Your task to perform on an android device: Open Maps and search for coffee Image 0: 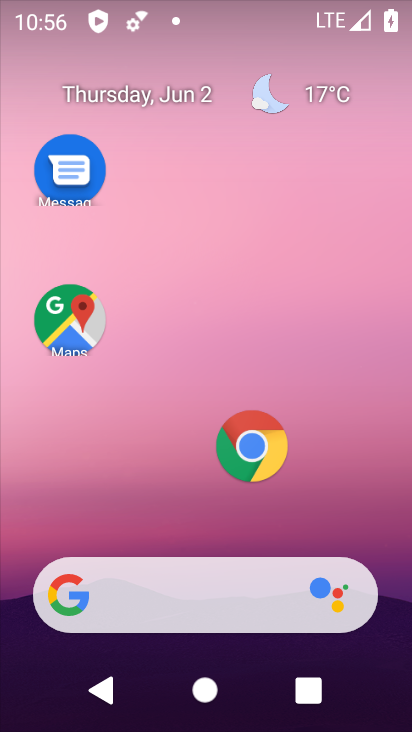
Step 0: press home button
Your task to perform on an android device: Open Maps and search for coffee Image 1: 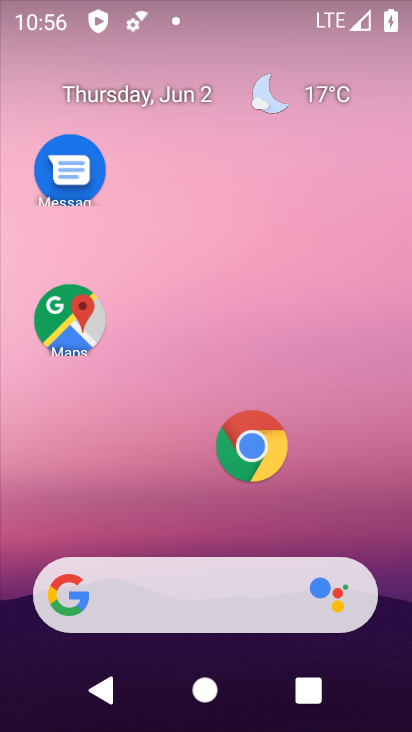
Step 1: drag from (337, 484) to (214, 3)
Your task to perform on an android device: Open Maps and search for coffee Image 2: 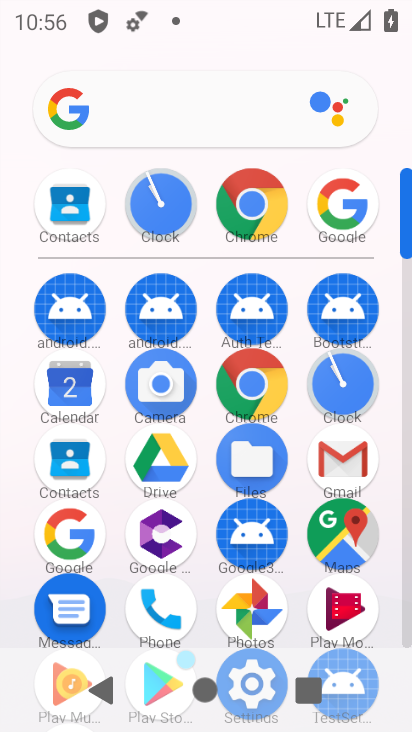
Step 2: click (329, 548)
Your task to perform on an android device: Open Maps and search for coffee Image 3: 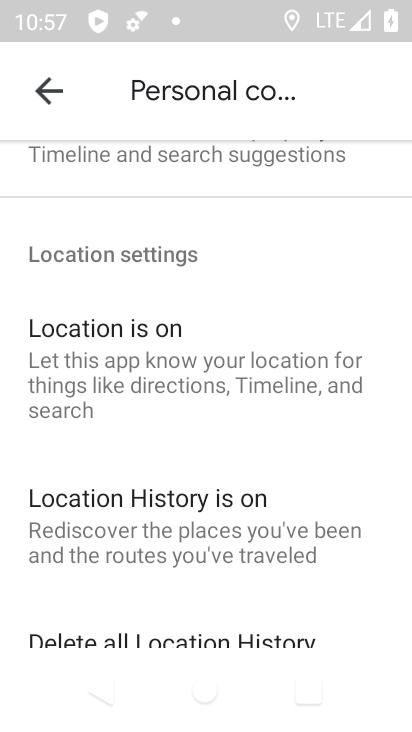
Step 3: click (69, 100)
Your task to perform on an android device: Open Maps and search for coffee Image 4: 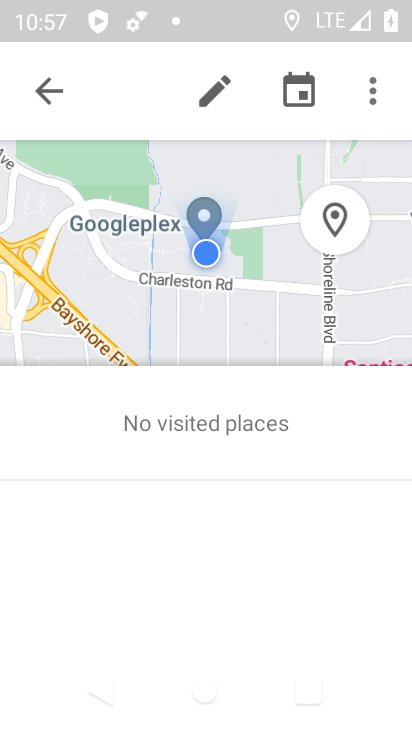
Step 4: click (69, 100)
Your task to perform on an android device: Open Maps and search for coffee Image 5: 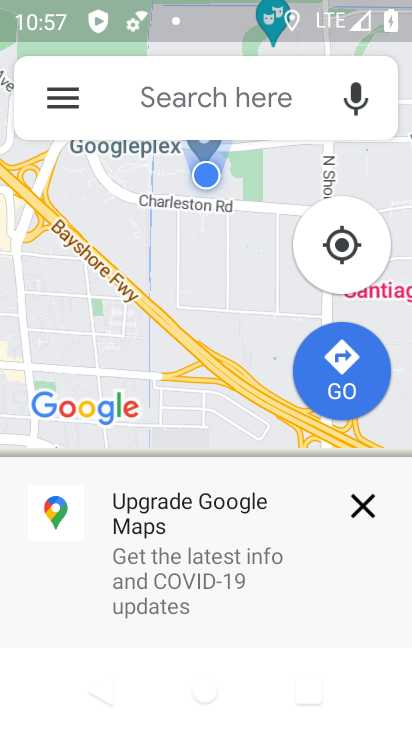
Step 5: click (150, 86)
Your task to perform on an android device: Open Maps and search for coffee Image 6: 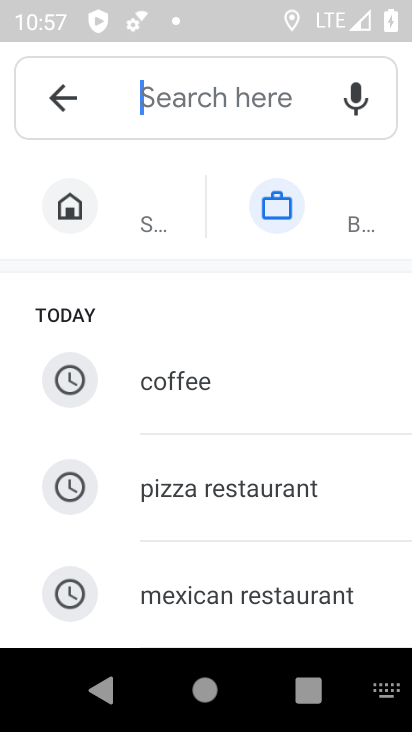
Step 6: click (150, 86)
Your task to perform on an android device: Open Maps and search for coffee Image 7: 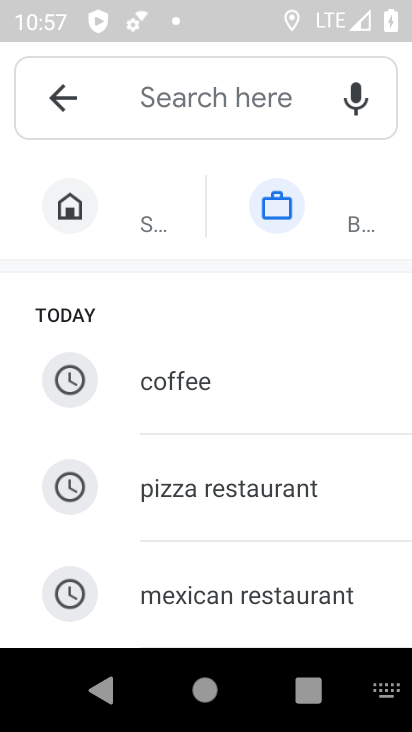
Step 7: click (150, 86)
Your task to perform on an android device: Open Maps and search for coffee Image 8: 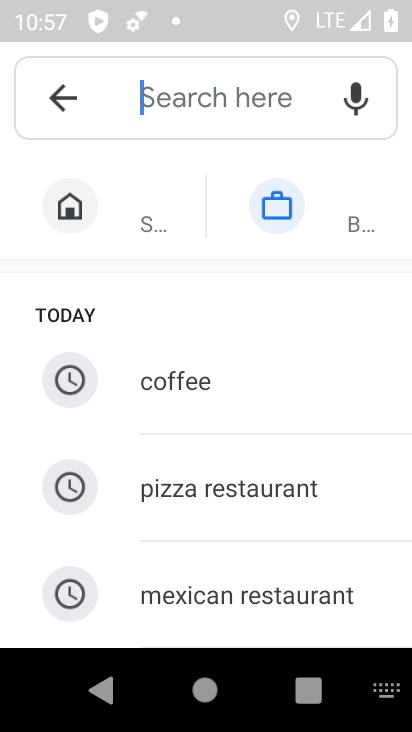
Step 8: type "coffee"
Your task to perform on an android device: Open Maps and search for coffee Image 9: 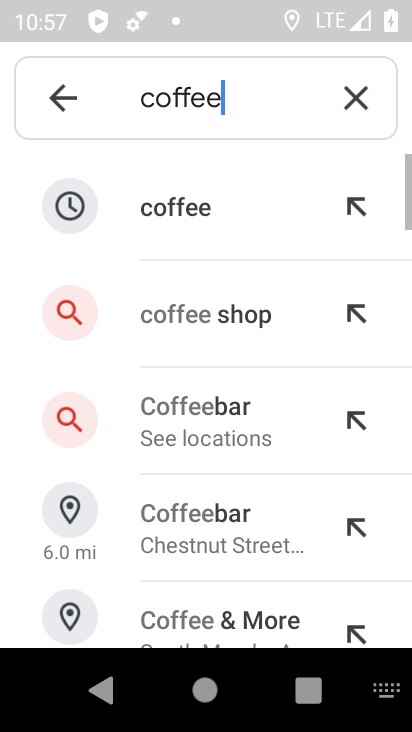
Step 9: click (104, 204)
Your task to perform on an android device: Open Maps and search for coffee Image 10: 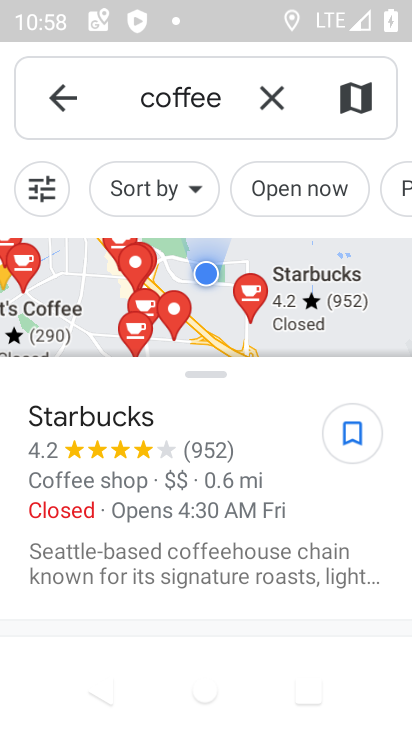
Step 10: task complete